Your task to perform on an android device: see creations saved in the google photos Image 0: 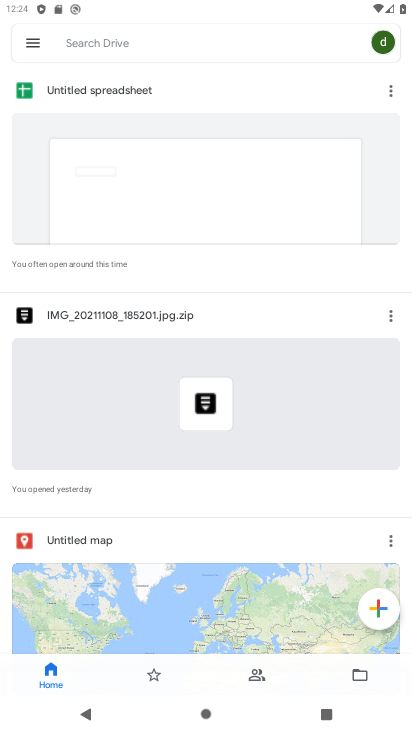
Step 0: press home button
Your task to perform on an android device: see creations saved in the google photos Image 1: 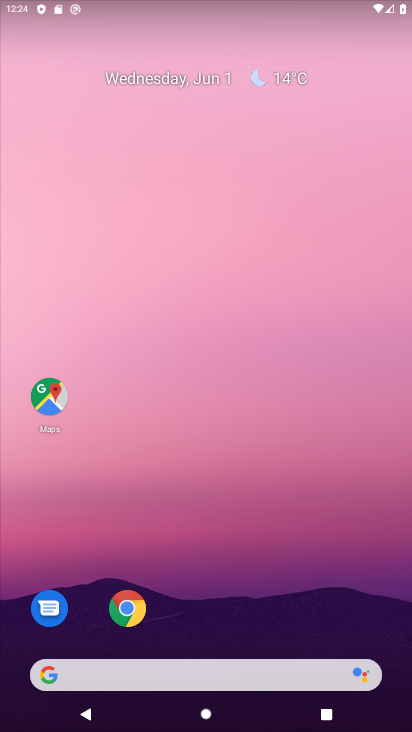
Step 1: drag from (184, 643) to (250, 237)
Your task to perform on an android device: see creations saved in the google photos Image 2: 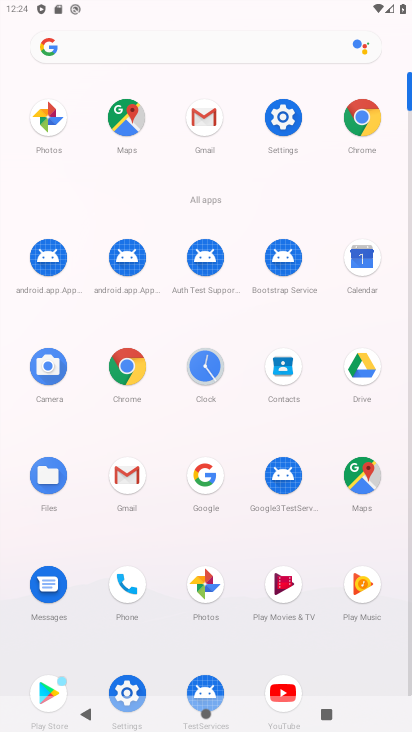
Step 2: click (199, 575)
Your task to perform on an android device: see creations saved in the google photos Image 3: 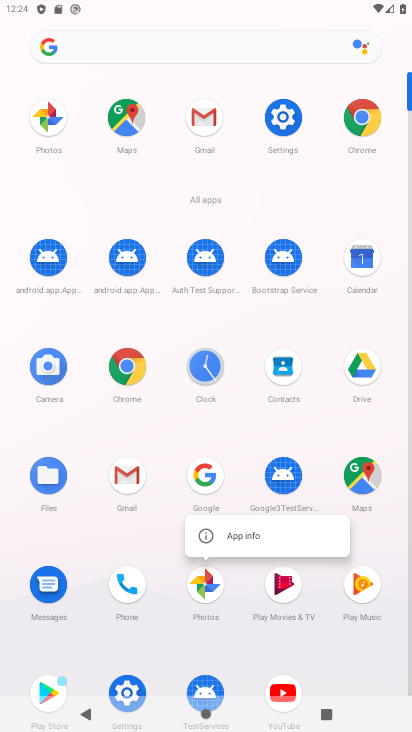
Step 3: click (198, 596)
Your task to perform on an android device: see creations saved in the google photos Image 4: 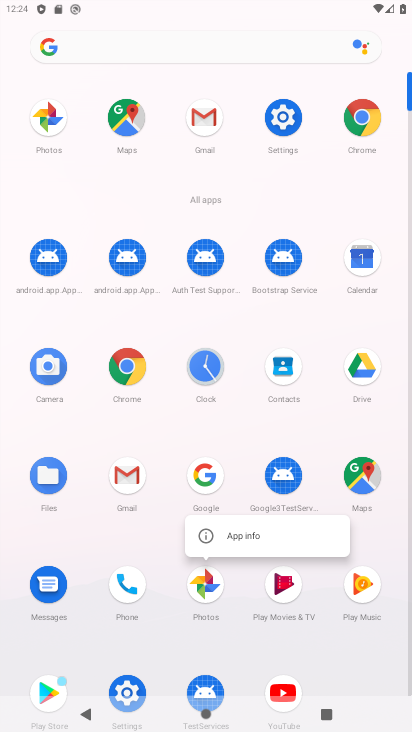
Step 4: click (201, 592)
Your task to perform on an android device: see creations saved in the google photos Image 5: 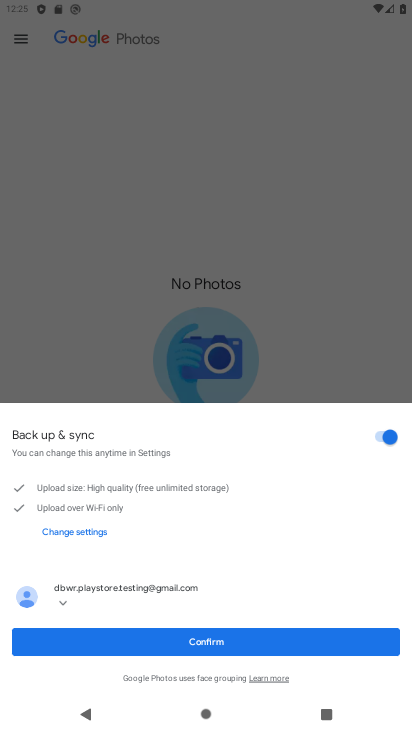
Step 5: click (269, 650)
Your task to perform on an android device: see creations saved in the google photos Image 6: 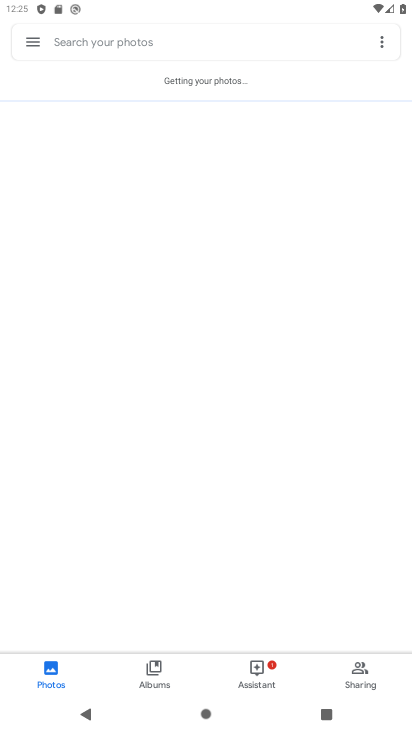
Step 6: drag from (226, 78) to (226, 37)
Your task to perform on an android device: see creations saved in the google photos Image 7: 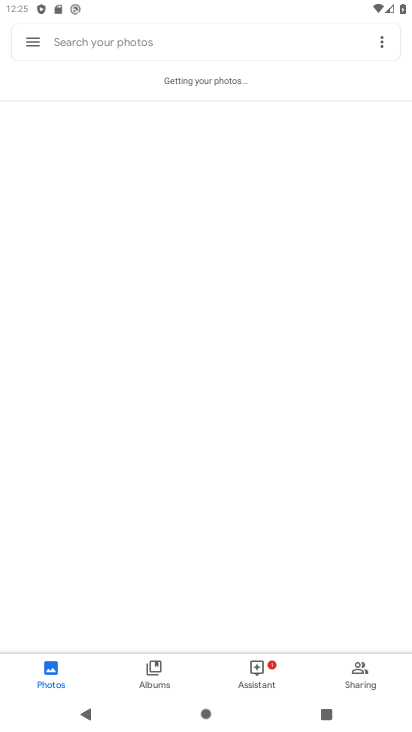
Step 7: click (219, 44)
Your task to perform on an android device: see creations saved in the google photos Image 8: 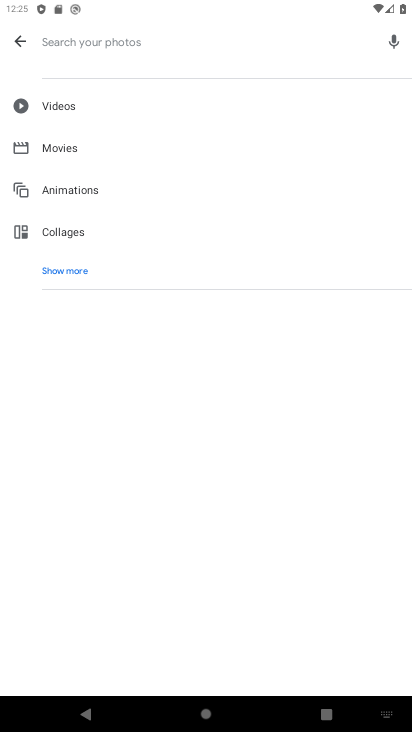
Step 8: click (68, 268)
Your task to perform on an android device: see creations saved in the google photos Image 9: 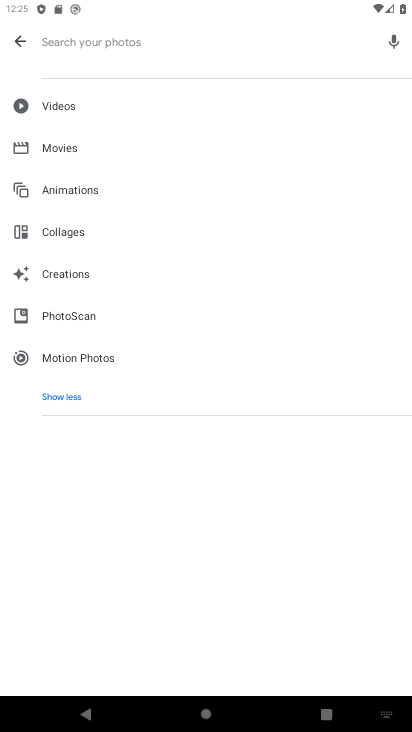
Step 9: click (69, 261)
Your task to perform on an android device: see creations saved in the google photos Image 10: 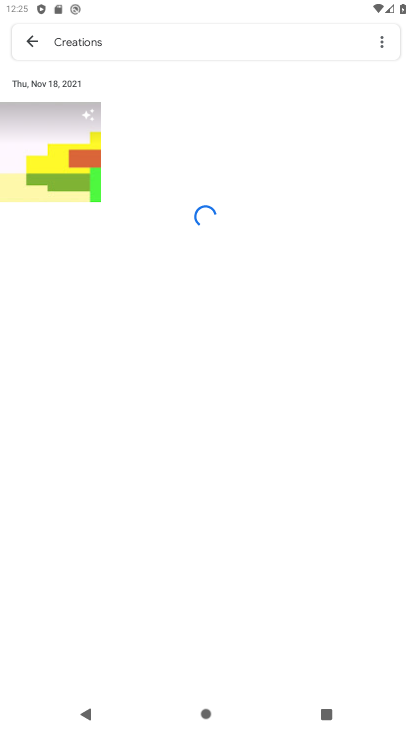
Step 10: task complete